Your task to perform on an android device: open chrome and create a bookmark for the current page Image 0: 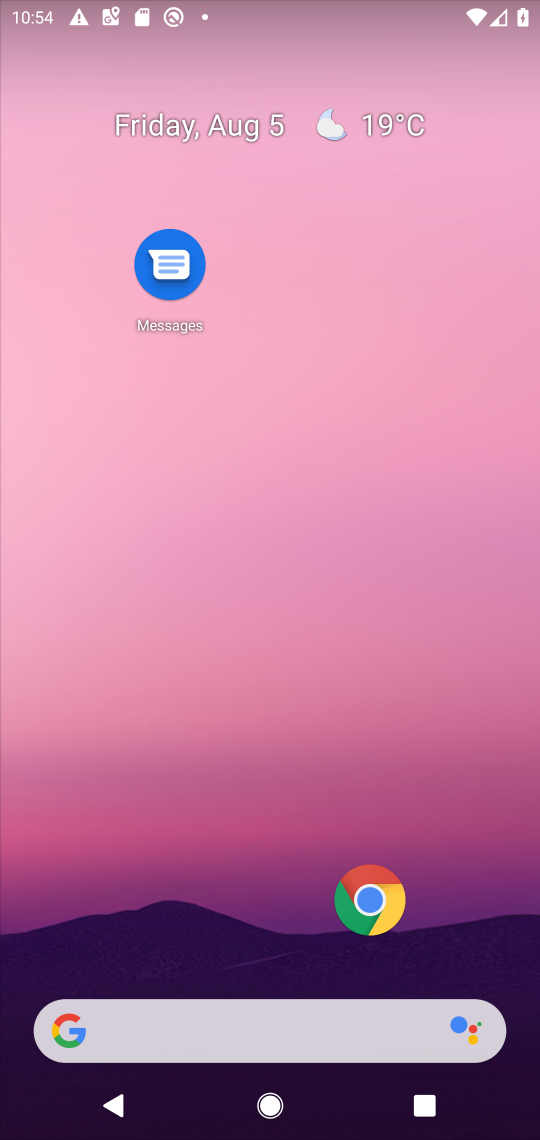
Step 0: click (368, 905)
Your task to perform on an android device: open chrome and create a bookmark for the current page Image 1: 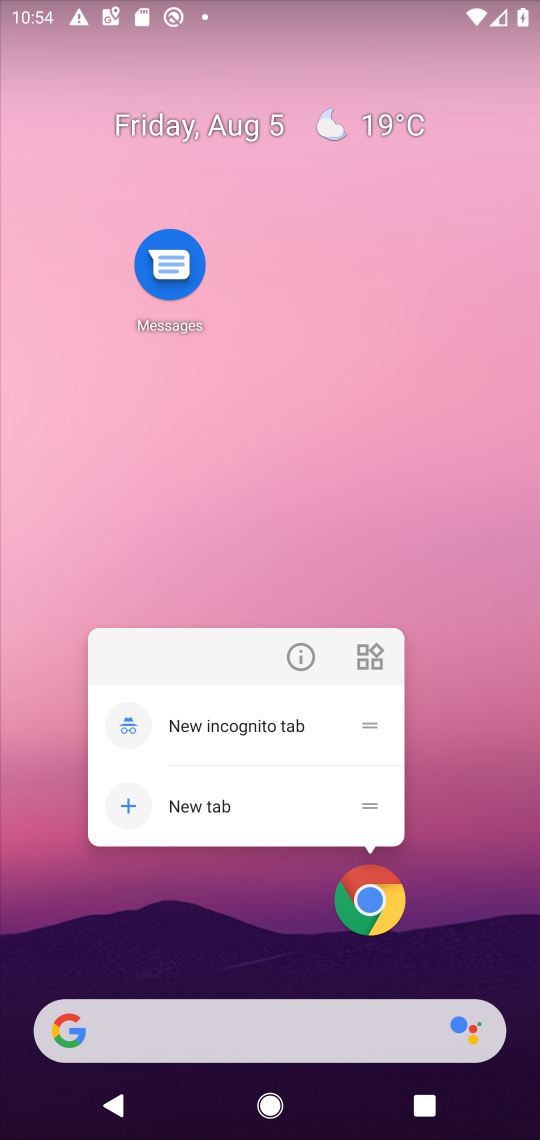
Step 1: click (310, 964)
Your task to perform on an android device: open chrome and create a bookmark for the current page Image 2: 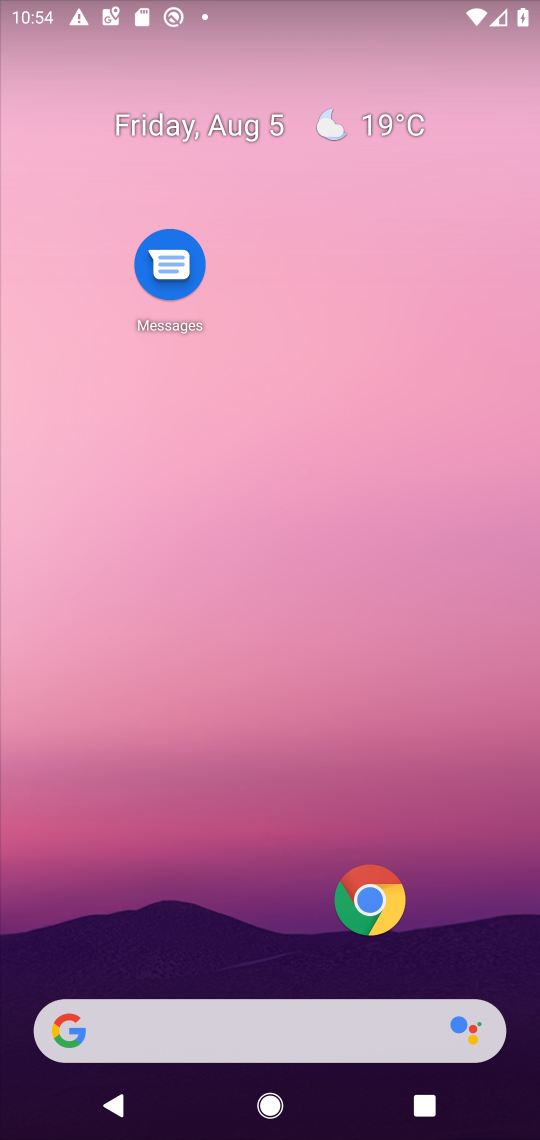
Step 2: click (368, 886)
Your task to perform on an android device: open chrome and create a bookmark for the current page Image 3: 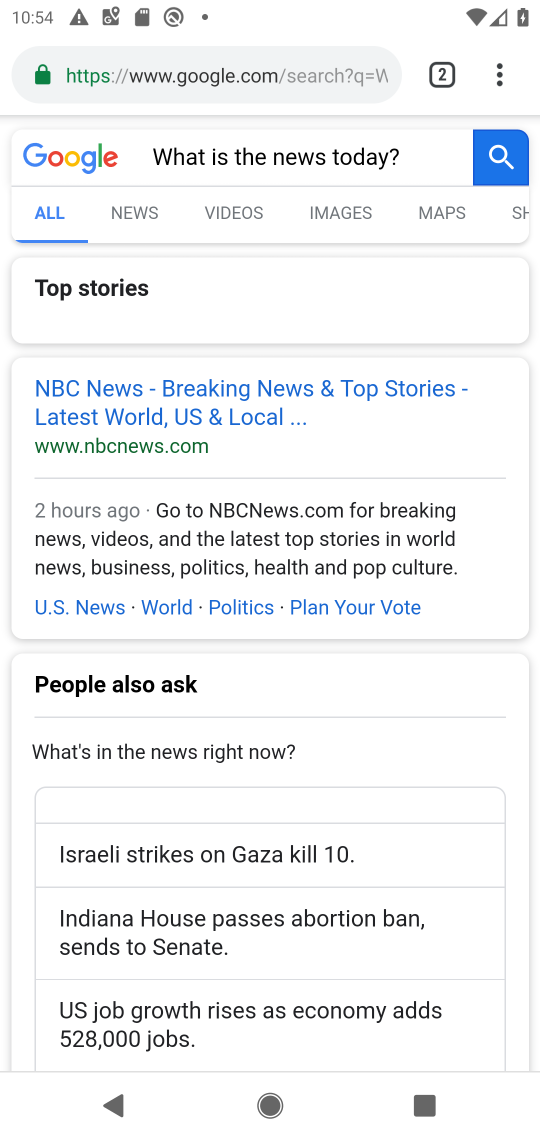
Step 3: click (507, 79)
Your task to perform on an android device: open chrome and create a bookmark for the current page Image 4: 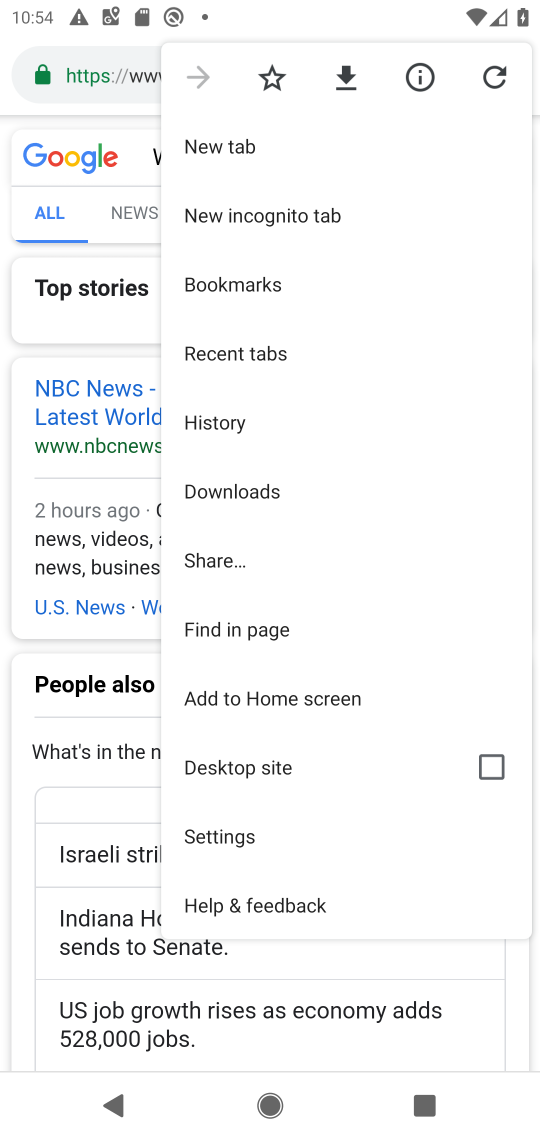
Step 4: click (267, 71)
Your task to perform on an android device: open chrome and create a bookmark for the current page Image 5: 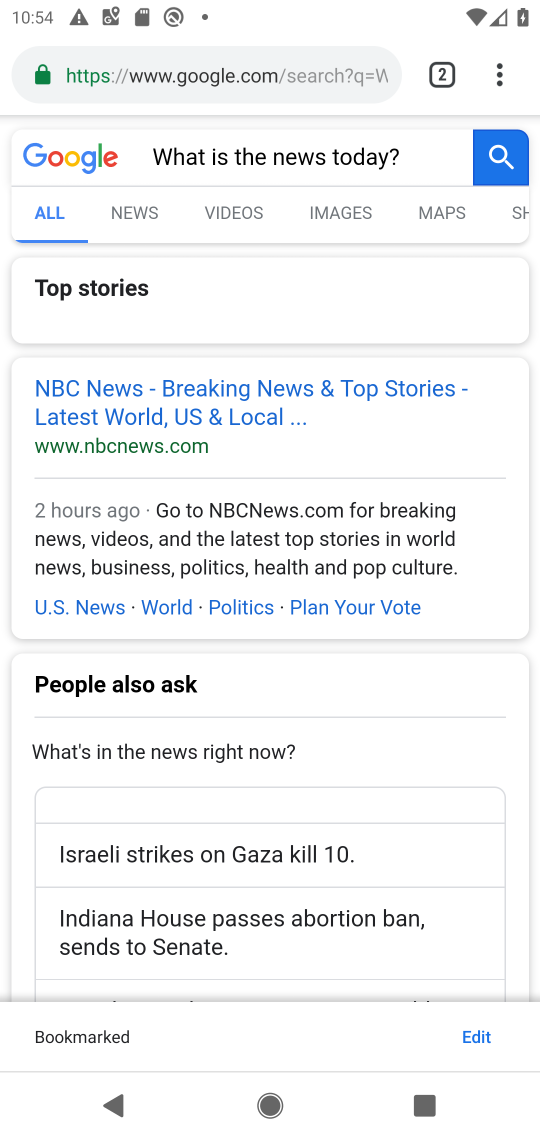
Step 5: task complete